Your task to perform on an android device: Show me popular games on the Play Store Image 0: 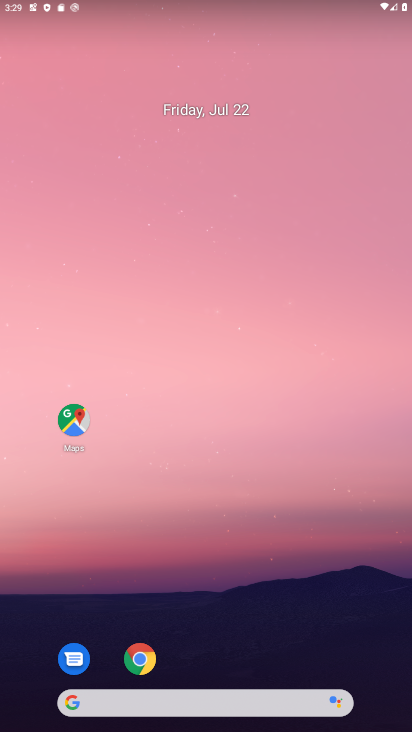
Step 0: drag from (226, 652) to (294, 83)
Your task to perform on an android device: Show me popular games on the Play Store Image 1: 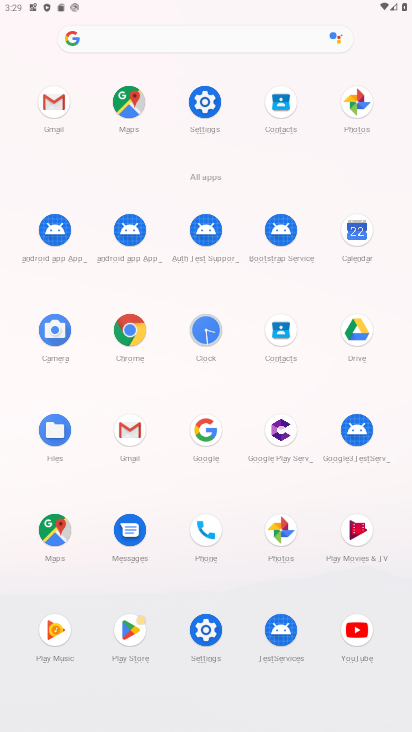
Step 1: click (123, 635)
Your task to perform on an android device: Show me popular games on the Play Store Image 2: 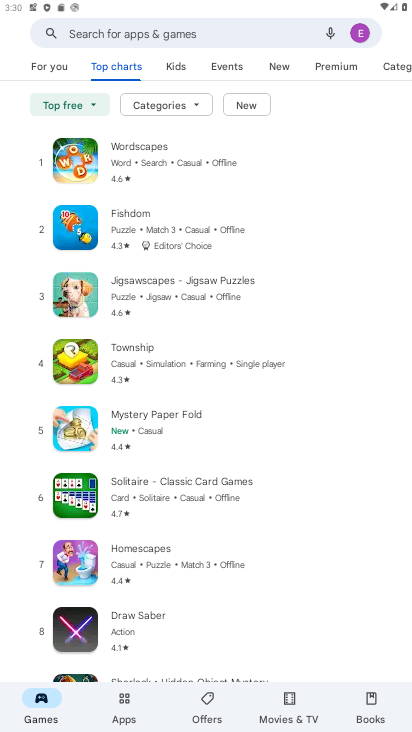
Step 2: task complete